Your task to perform on an android device: toggle notification dots Image 0: 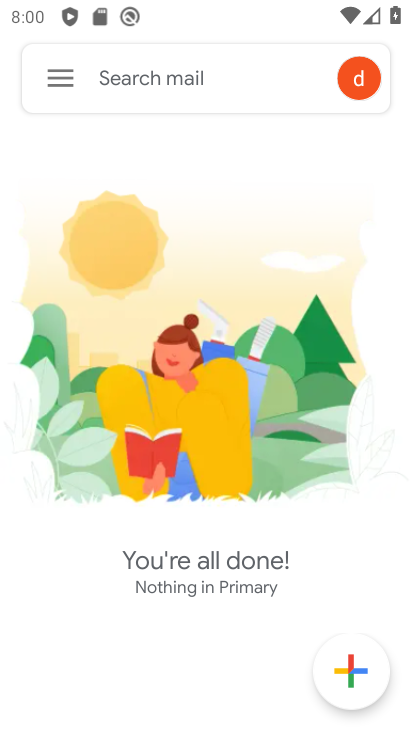
Step 0: press home button
Your task to perform on an android device: toggle notification dots Image 1: 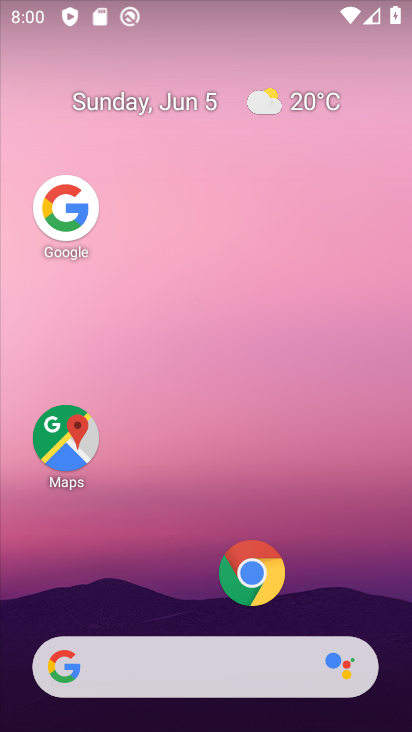
Step 1: drag from (207, 622) to (209, 134)
Your task to perform on an android device: toggle notification dots Image 2: 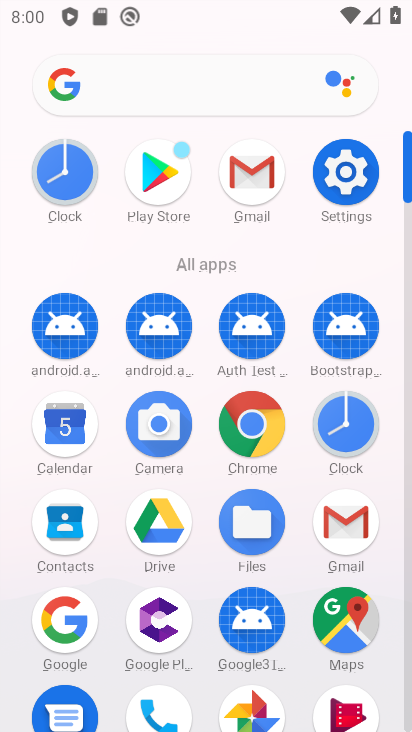
Step 2: click (346, 180)
Your task to perform on an android device: toggle notification dots Image 3: 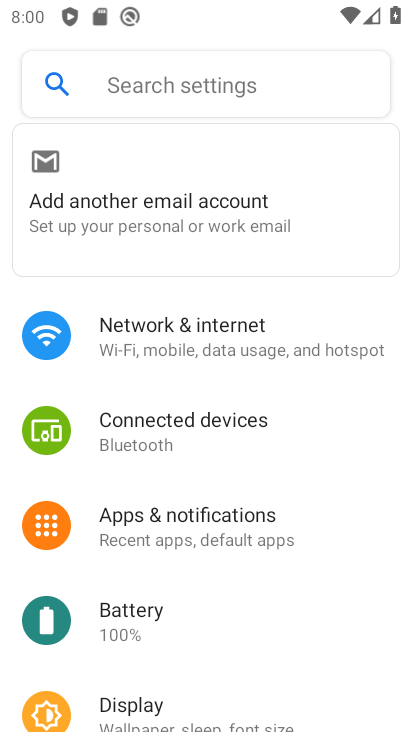
Step 3: click (125, 519)
Your task to perform on an android device: toggle notification dots Image 4: 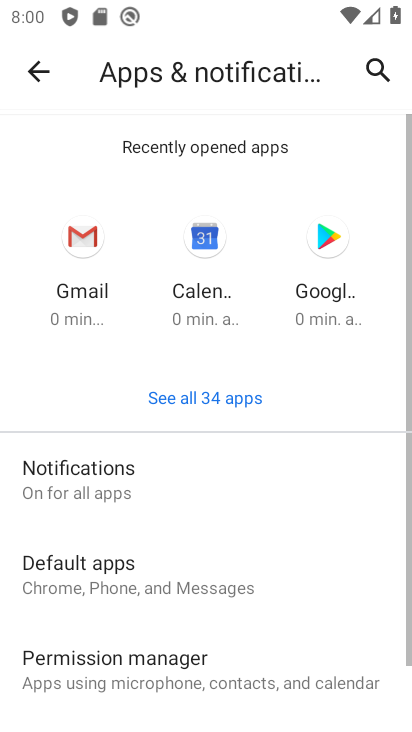
Step 4: click (116, 484)
Your task to perform on an android device: toggle notification dots Image 5: 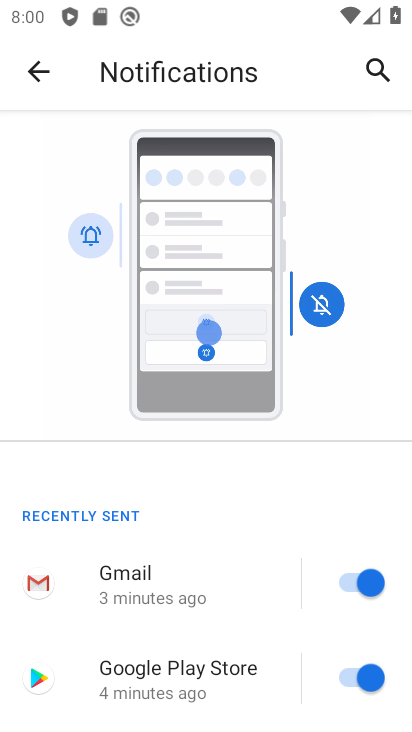
Step 5: drag from (127, 539) to (126, 80)
Your task to perform on an android device: toggle notification dots Image 6: 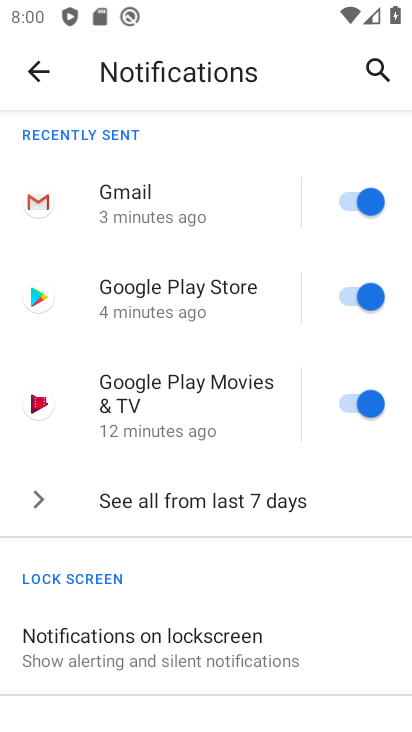
Step 6: drag from (263, 569) to (257, 145)
Your task to perform on an android device: toggle notification dots Image 7: 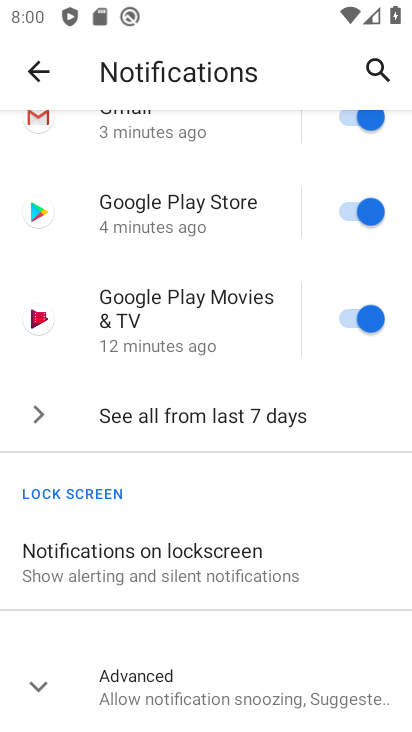
Step 7: click (237, 670)
Your task to perform on an android device: toggle notification dots Image 8: 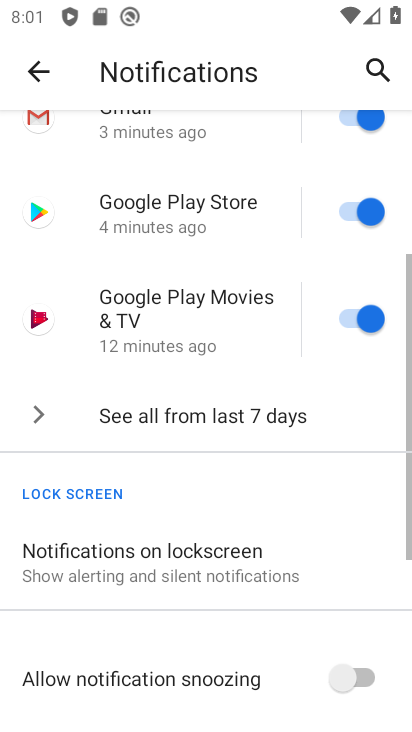
Step 8: drag from (237, 670) to (217, 339)
Your task to perform on an android device: toggle notification dots Image 9: 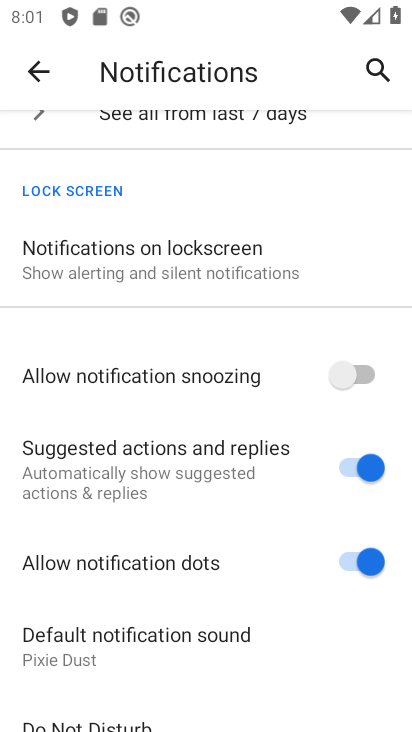
Step 9: click (350, 555)
Your task to perform on an android device: toggle notification dots Image 10: 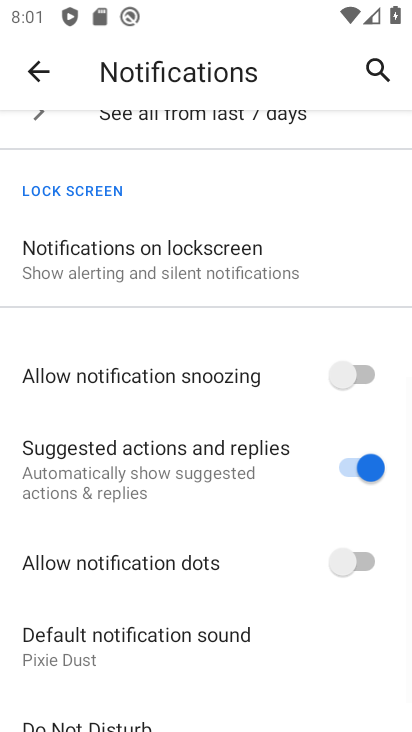
Step 10: task complete